Your task to perform on an android device: allow notifications from all sites in the chrome app Image 0: 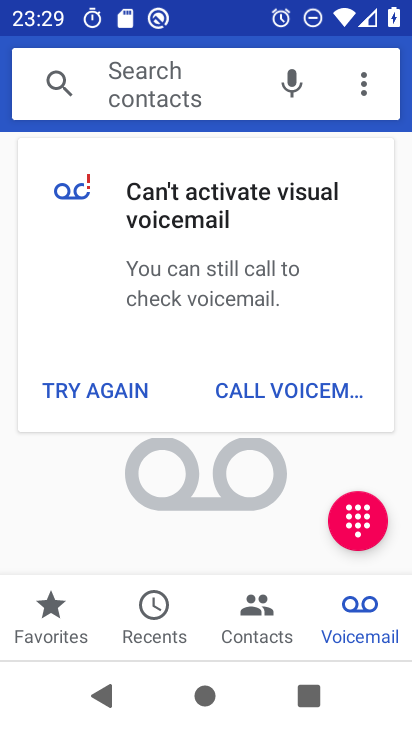
Step 0: press home button
Your task to perform on an android device: allow notifications from all sites in the chrome app Image 1: 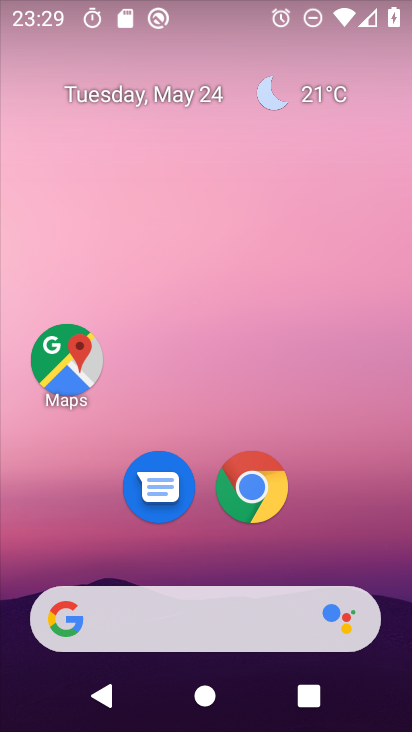
Step 1: click (253, 492)
Your task to perform on an android device: allow notifications from all sites in the chrome app Image 2: 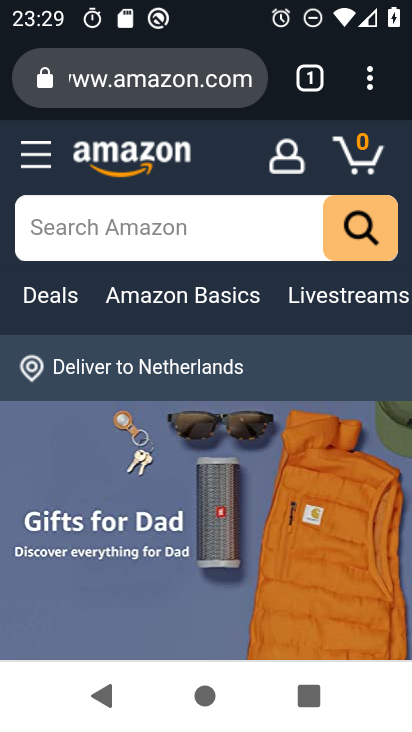
Step 2: click (370, 79)
Your task to perform on an android device: allow notifications from all sites in the chrome app Image 3: 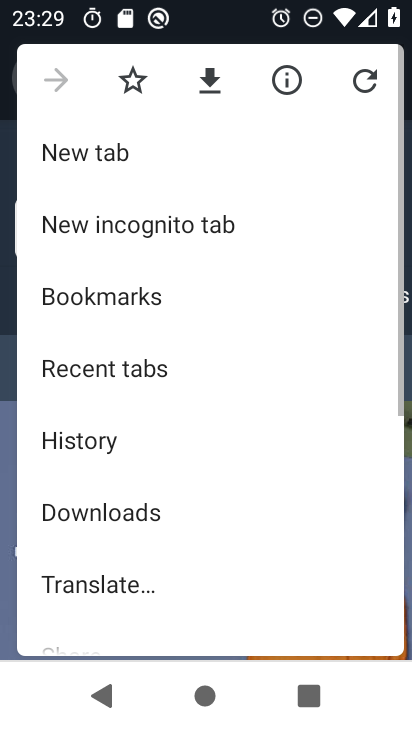
Step 3: drag from (191, 556) to (181, 76)
Your task to perform on an android device: allow notifications from all sites in the chrome app Image 4: 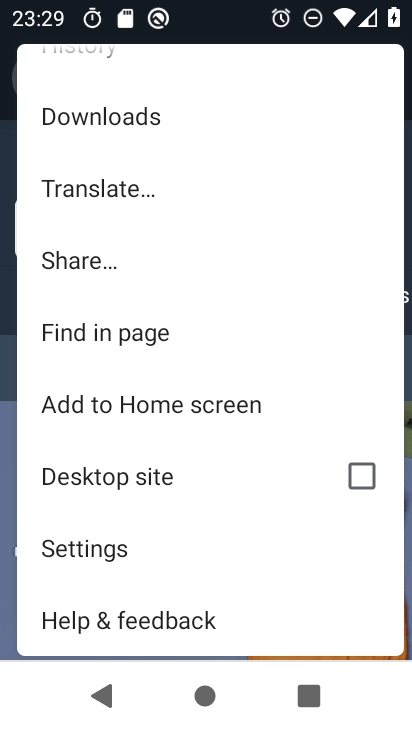
Step 4: click (99, 542)
Your task to perform on an android device: allow notifications from all sites in the chrome app Image 5: 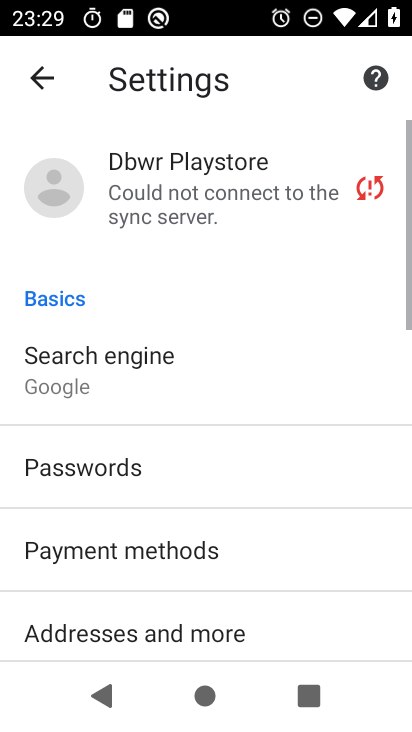
Step 5: drag from (237, 569) to (213, 118)
Your task to perform on an android device: allow notifications from all sites in the chrome app Image 6: 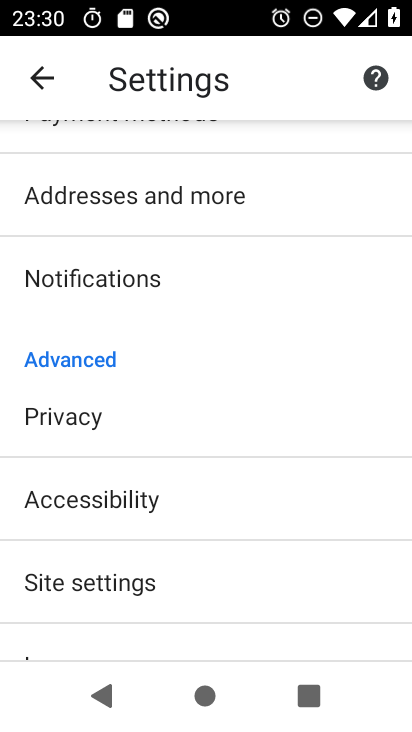
Step 6: click (76, 581)
Your task to perform on an android device: allow notifications from all sites in the chrome app Image 7: 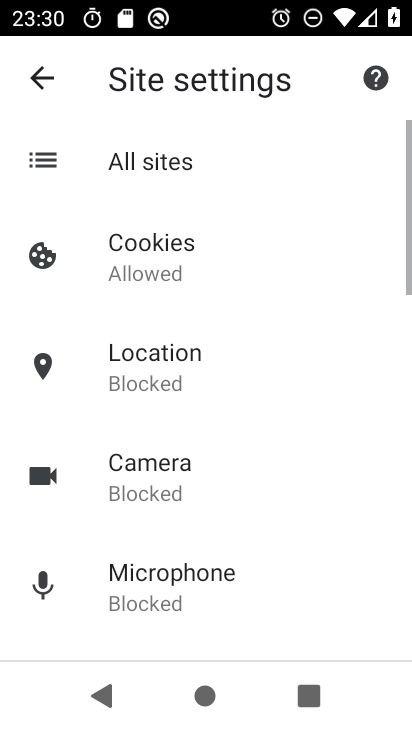
Step 7: drag from (239, 545) to (227, 238)
Your task to perform on an android device: allow notifications from all sites in the chrome app Image 8: 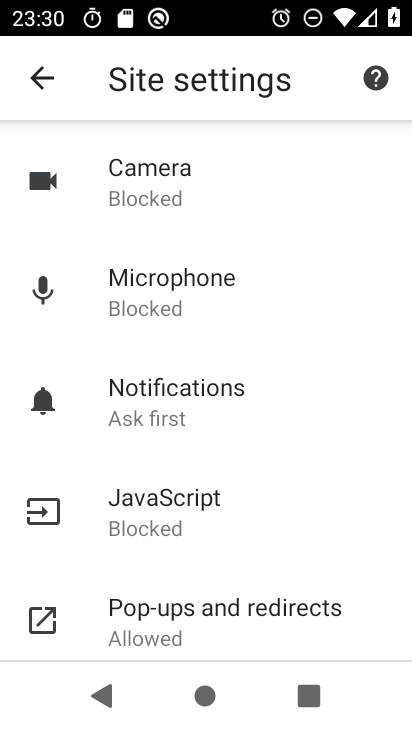
Step 8: click (157, 406)
Your task to perform on an android device: allow notifications from all sites in the chrome app Image 9: 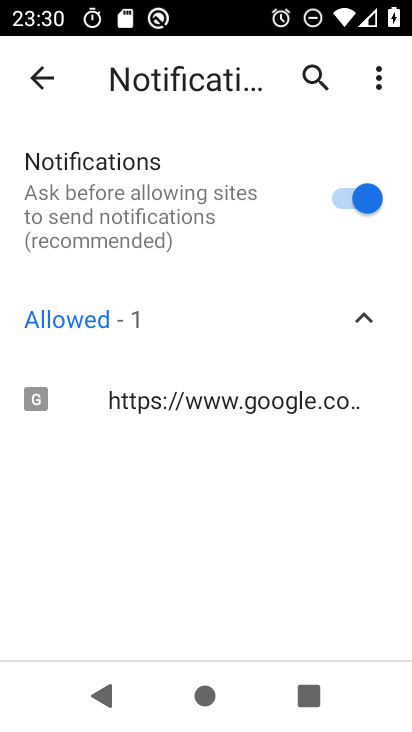
Step 9: task complete